Your task to perform on an android device: Turn on the flashlight Image 0: 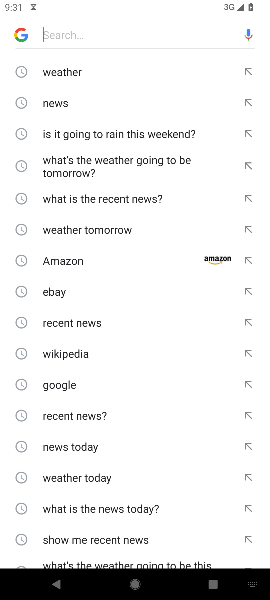
Step 0: press home button
Your task to perform on an android device: Turn on the flashlight Image 1: 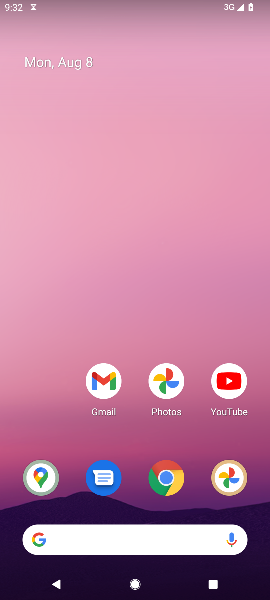
Step 1: drag from (120, 2) to (33, 379)
Your task to perform on an android device: Turn on the flashlight Image 2: 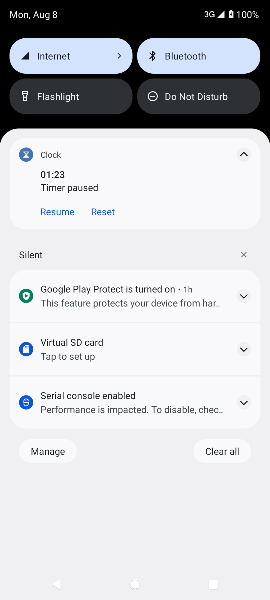
Step 2: click (53, 96)
Your task to perform on an android device: Turn on the flashlight Image 3: 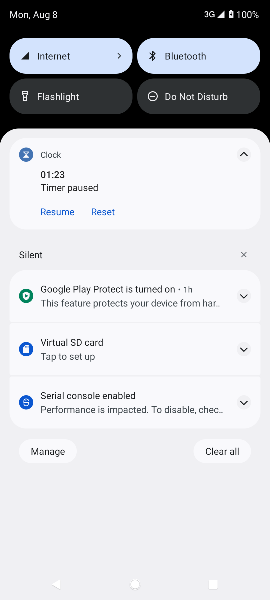
Step 3: click (53, 96)
Your task to perform on an android device: Turn on the flashlight Image 4: 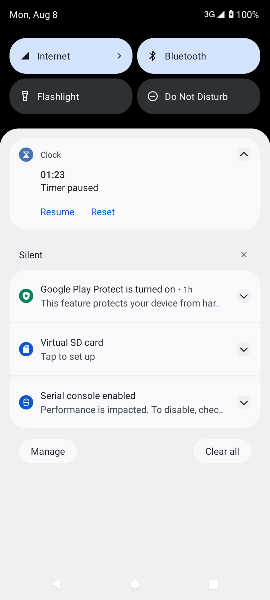
Step 4: task complete